Your task to perform on an android device: turn off javascript in the chrome app Image 0: 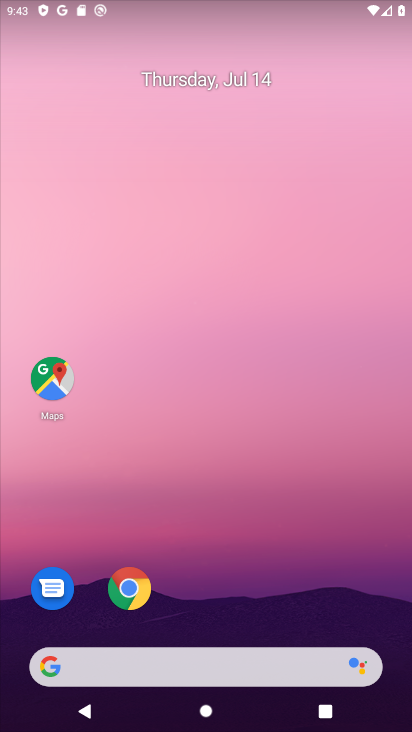
Step 0: drag from (177, 677) to (331, 211)
Your task to perform on an android device: turn off javascript in the chrome app Image 1: 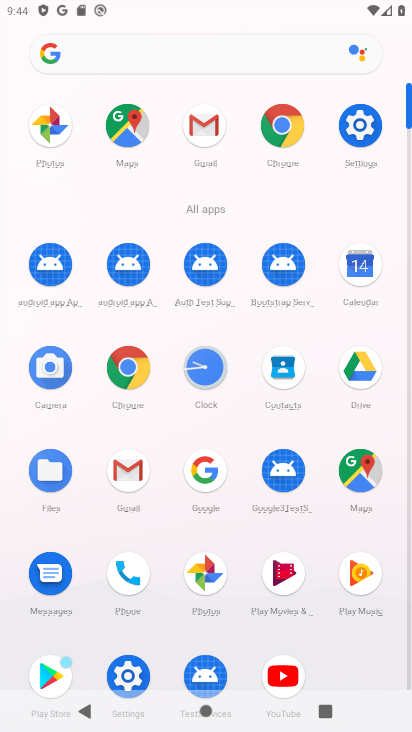
Step 1: click (284, 139)
Your task to perform on an android device: turn off javascript in the chrome app Image 2: 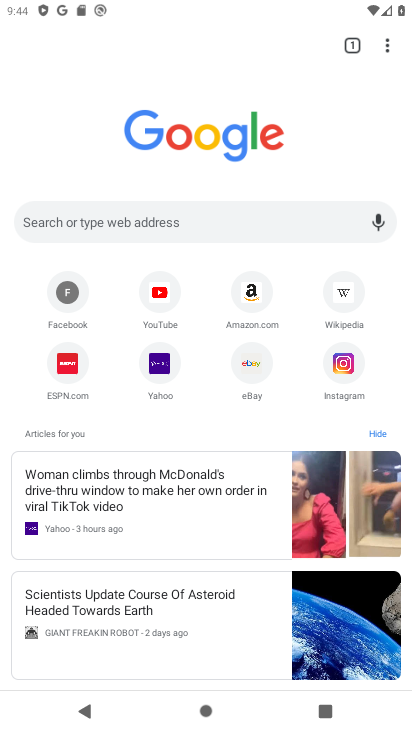
Step 2: drag from (387, 46) to (292, 376)
Your task to perform on an android device: turn off javascript in the chrome app Image 3: 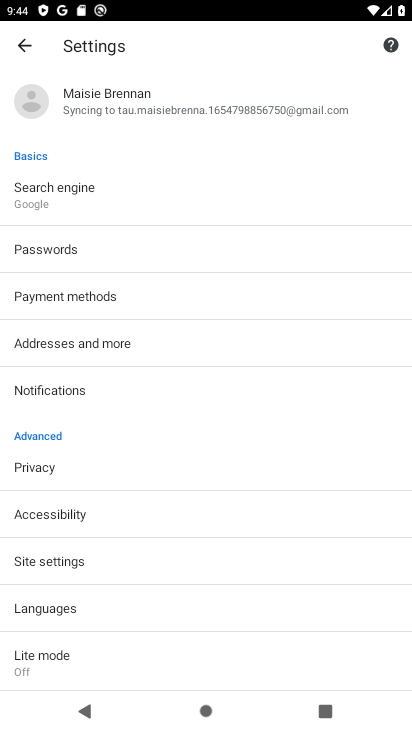
Step 3: click (109, 567)
Your task to perform on an android device: turn off javascript in the chrome app Image 4: 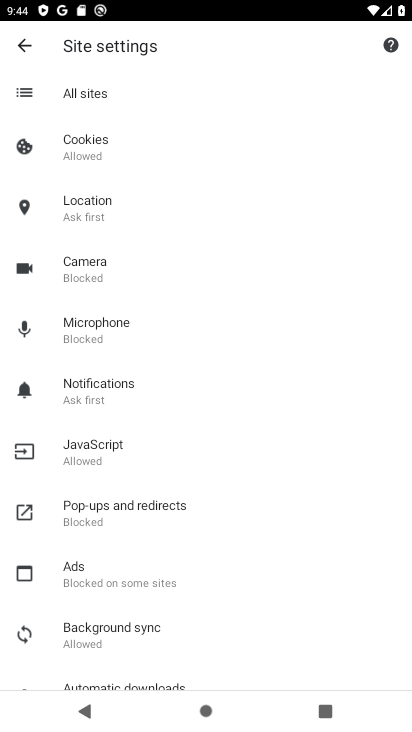
Step 4: click (114, 442)
Your task to perform on an android device: turn off javascript in the chrome app Image 5: 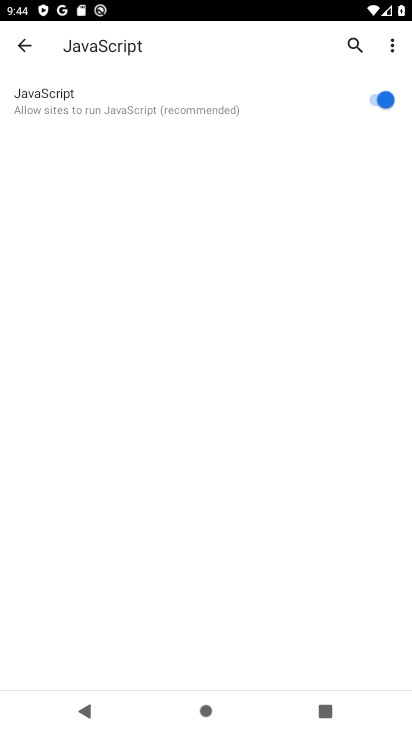
Step 5: click (373, 100)
Your task to perform on an android device: turn off javascript in the chrome app Image 6: 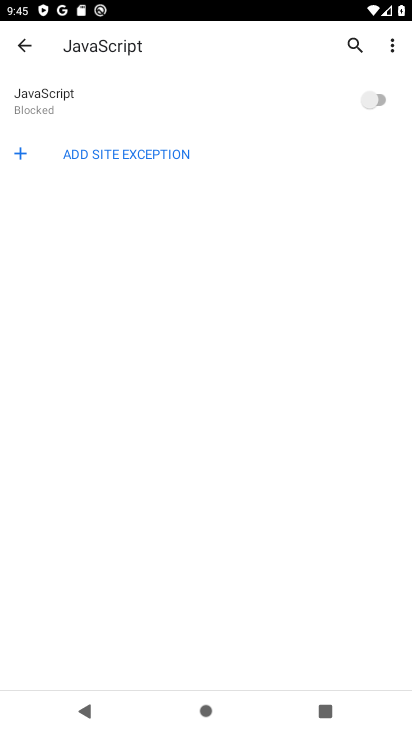
Step 6: task complete